Your task to perform on an android device: check google app version Image 0: 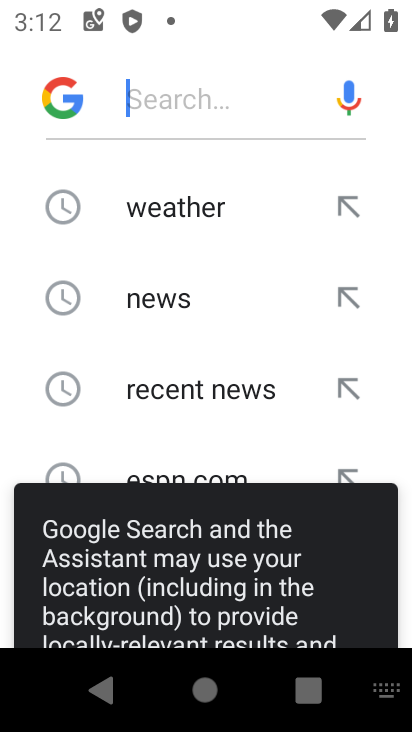
Step 0: press home button
Your task to perform on an android device: check google app version Image 1: 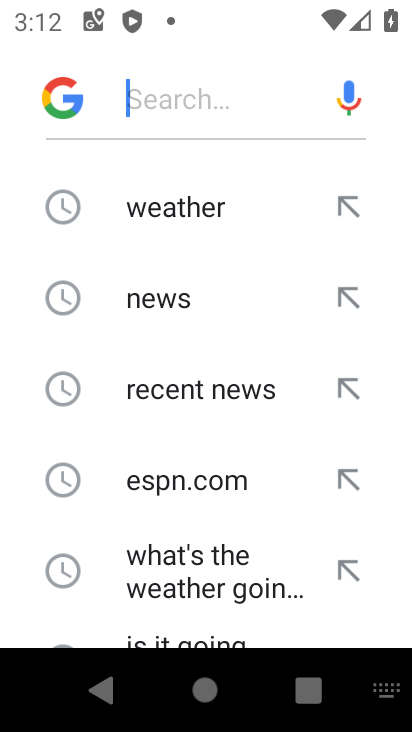
Step 1: click (44, 91)
Your task to perform on an android device: check google app version Image 2: 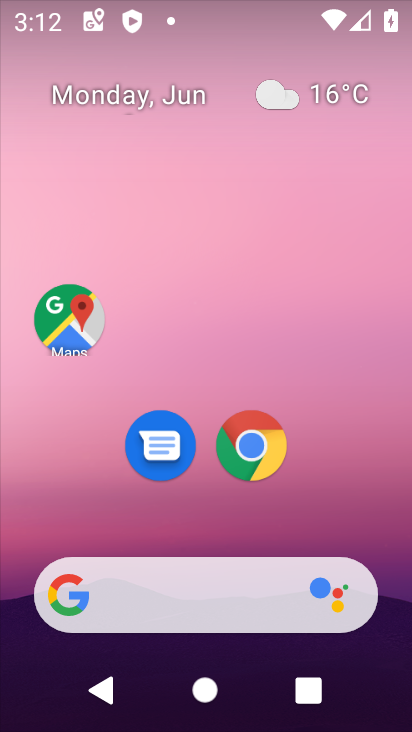
Step 2: drag from (201, 491) to (232, 211)
Your task to perform on an android device: check google app version Image 3: 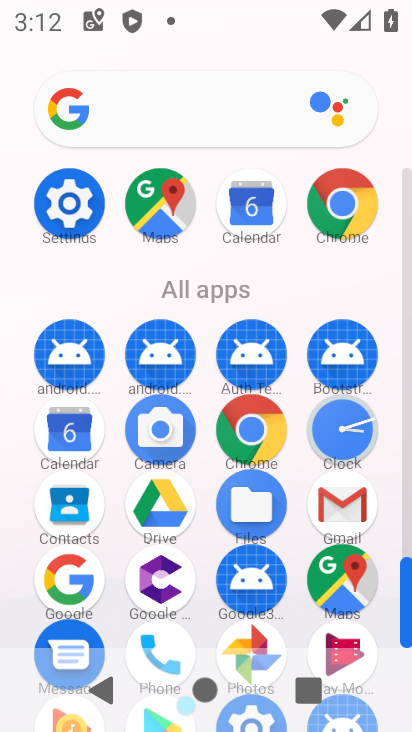
Step 3: click (74, 582)
Your task to perform on an android device: check google app version Image 4: 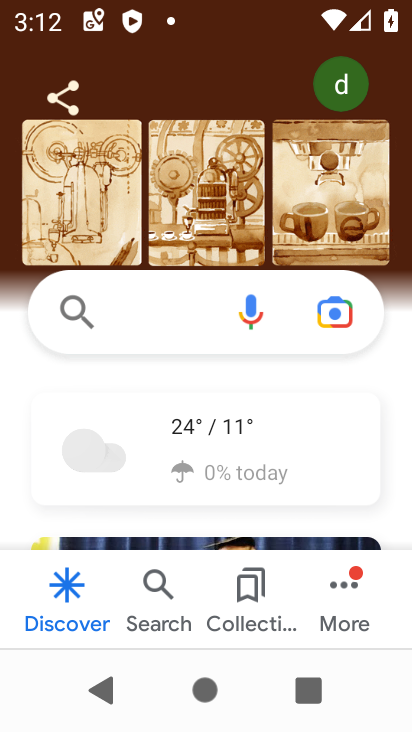
Step 4: click (343, 586)
Your task to perform on an android device: check google app version Image 5: 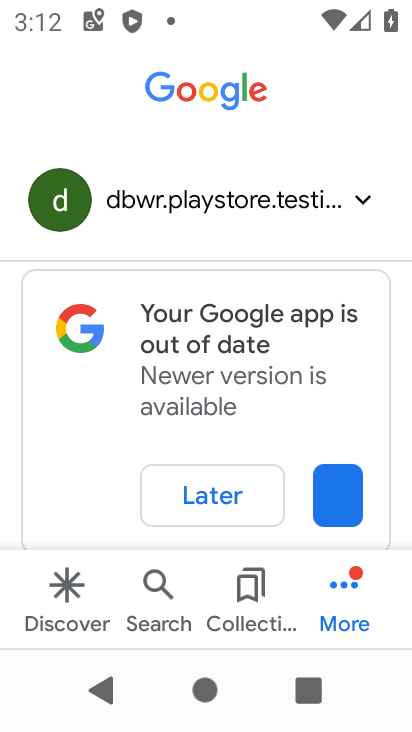
Step 5: click (331, 589)
Your task to perform on an android device: check google app version Image 6: 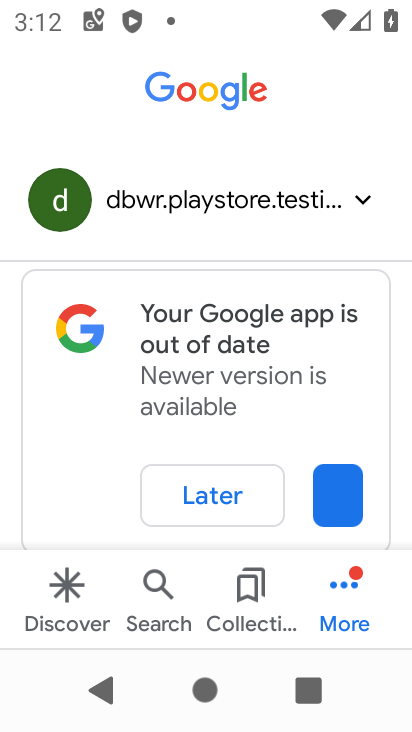
Step 6: drag from (247, 437) to (289, 156)
Your task to perform on an android device: check google app version Image 7: 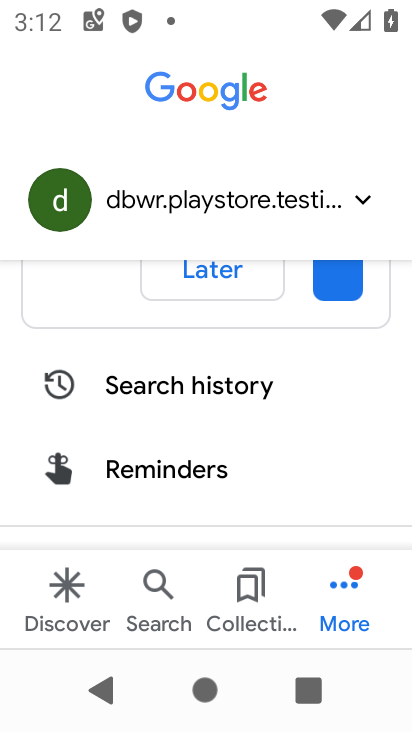
Step 7: drag from (223, 459) to (238, 185)
Your task to perform on an android device: check google app version Image 8: 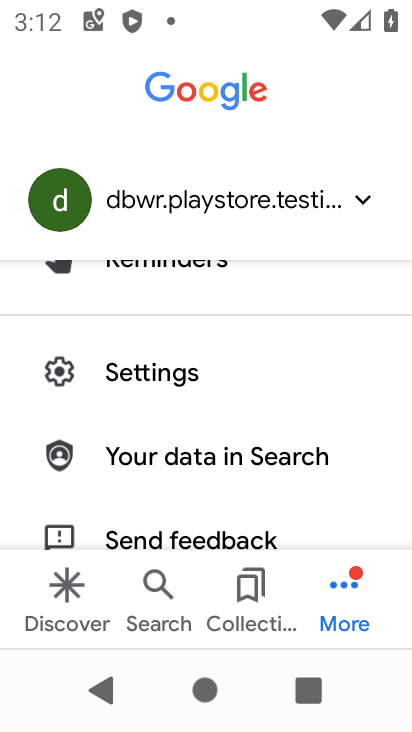
Step 8: click (163, 364)
Your task to perform on an android device: check google app version Image 9: 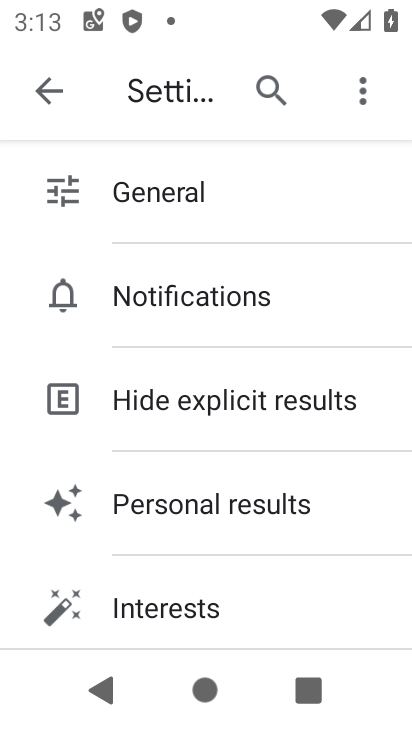
Step 9: drag from (202, 580) to (202, 292)
Your task to perform on an android device: check google app version Image 10: 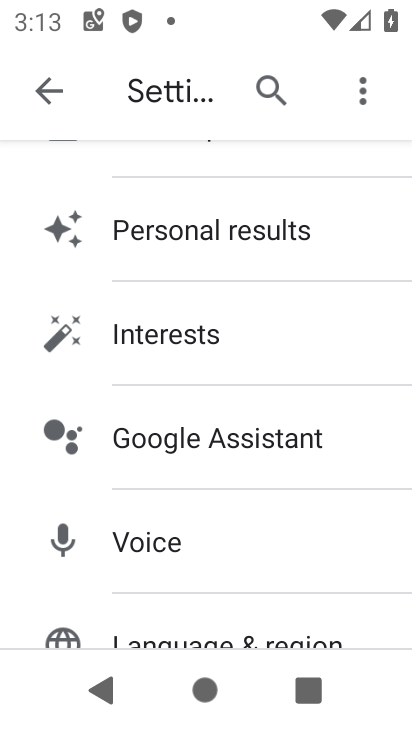
Step 10: drag from (166, 595) to (231, 200)
Your task to perform on an android device: check google app version Image 11: 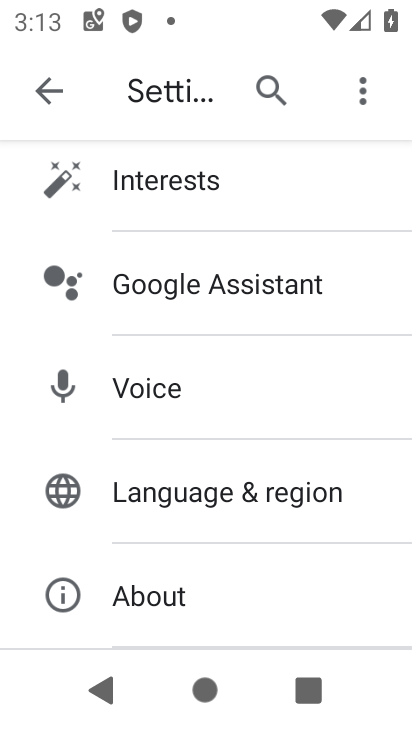
Step 11: drag from (255, 486) to (272, 285)
Your task to perform on an android device: check google app version Image 12: 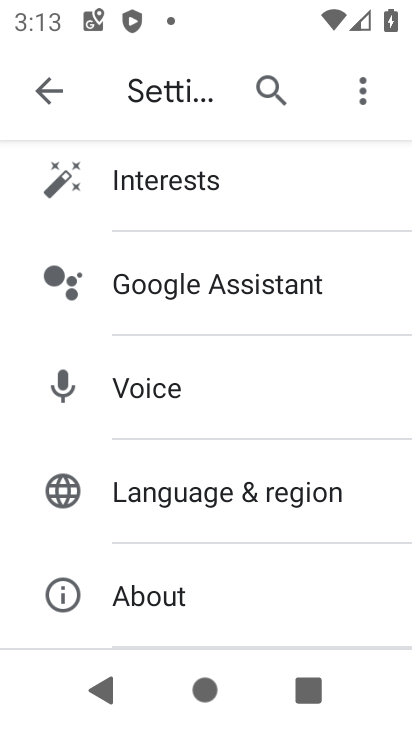
Step 12: drag from (261, 519) to (299, 243)
Your task to perform on an android device: check google app version Image 13: 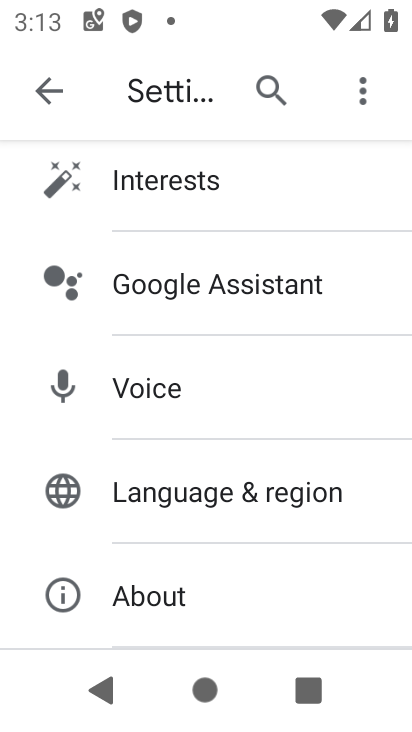
Step 13: click (199, 580)
Your task to perform on an android device: check google app version Image 14: 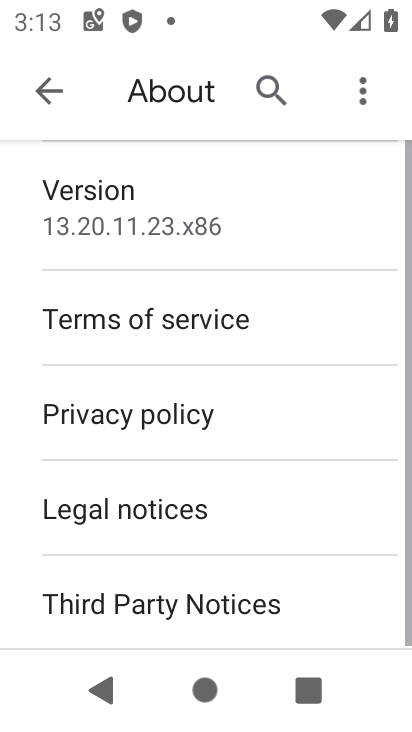
Step 14: task complete